Your task to perform on an android device: Open Wikipedia Image 0: 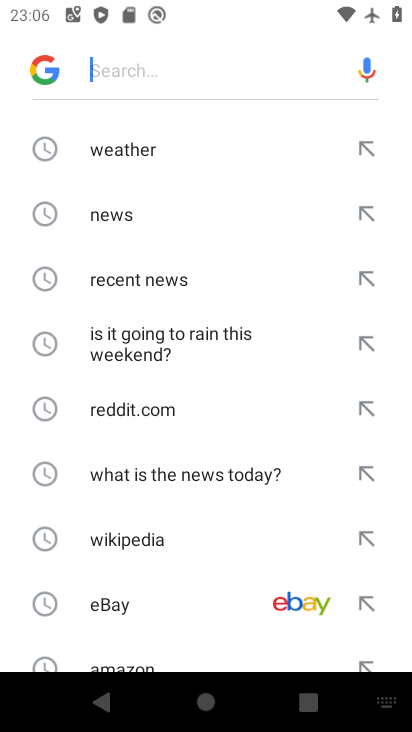
Step 0: click (154, 525)
Your task to perform on an android device: Open Wikipedia Image 1: 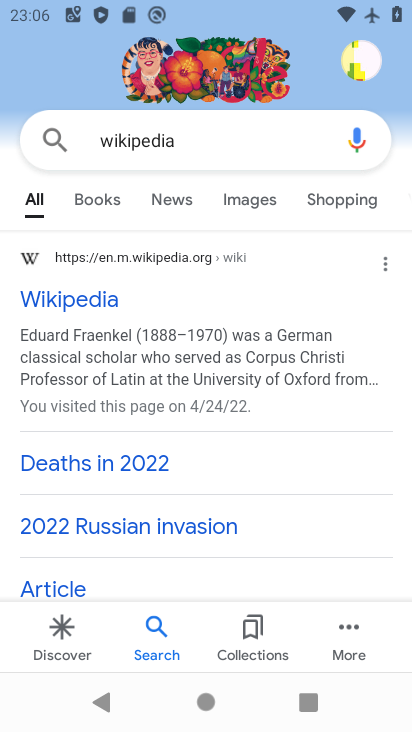
Step 1: click (91, 311)
Your task to perform on an android device: Open Wikipedia Image 2: 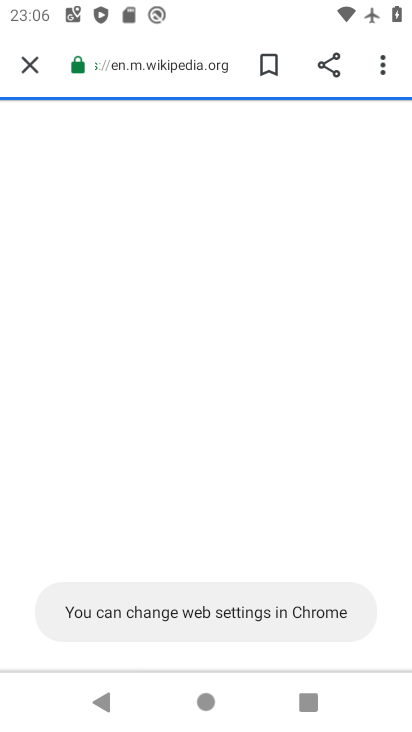
Step 2: task complete